Your task to perform on an android device: choose inbox layout in the gmail app Image 0: 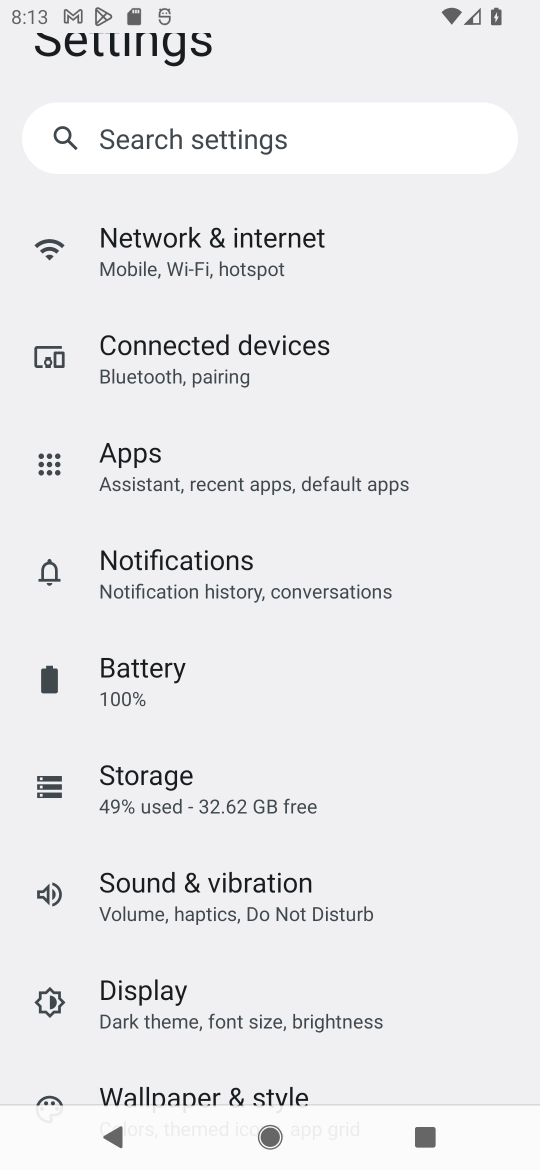
Step 0: press home button
Your task to perform on an android device: choose inbox layout in the gmail app Image 1: 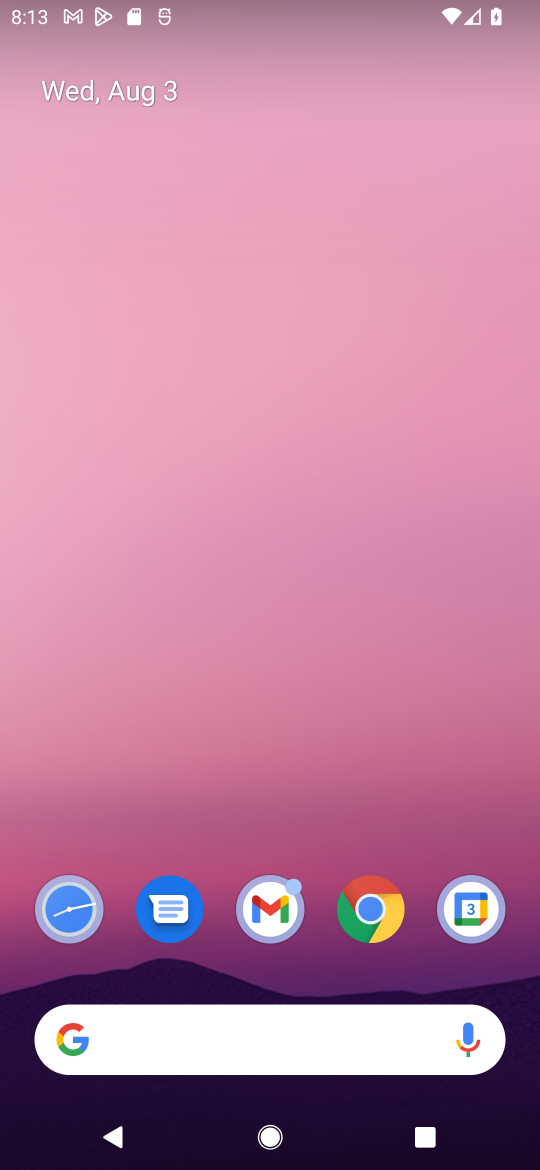
Step 1: drag from (416, 818) to (447, 139)
Your task to perform on an android device: choose inbox layout in the gmail app Image 2: 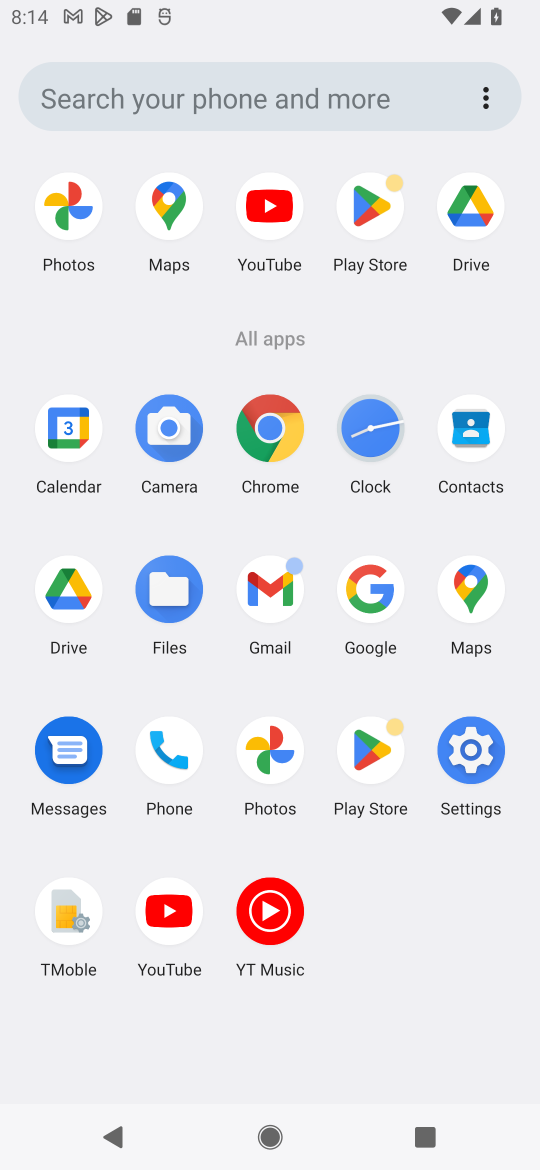
Step 2: click (268, 603)
Your task to perform on an android device: choose inbox layout in the gmail app Image 3: 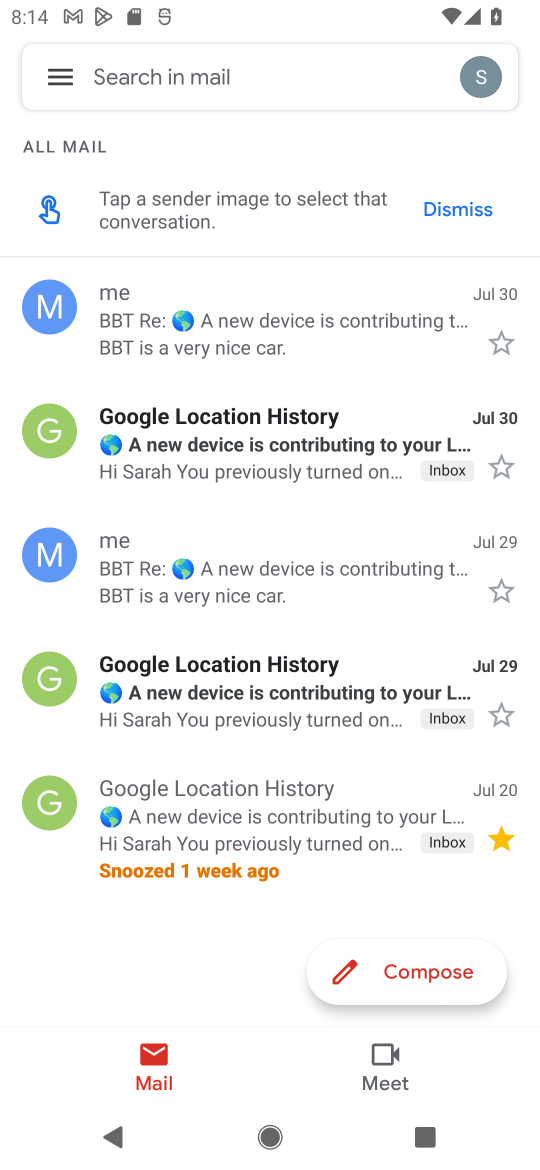
Step 3: click (61, 74)
Your task to perform on an android device: choose inbox layout in the gmail app Image 4: 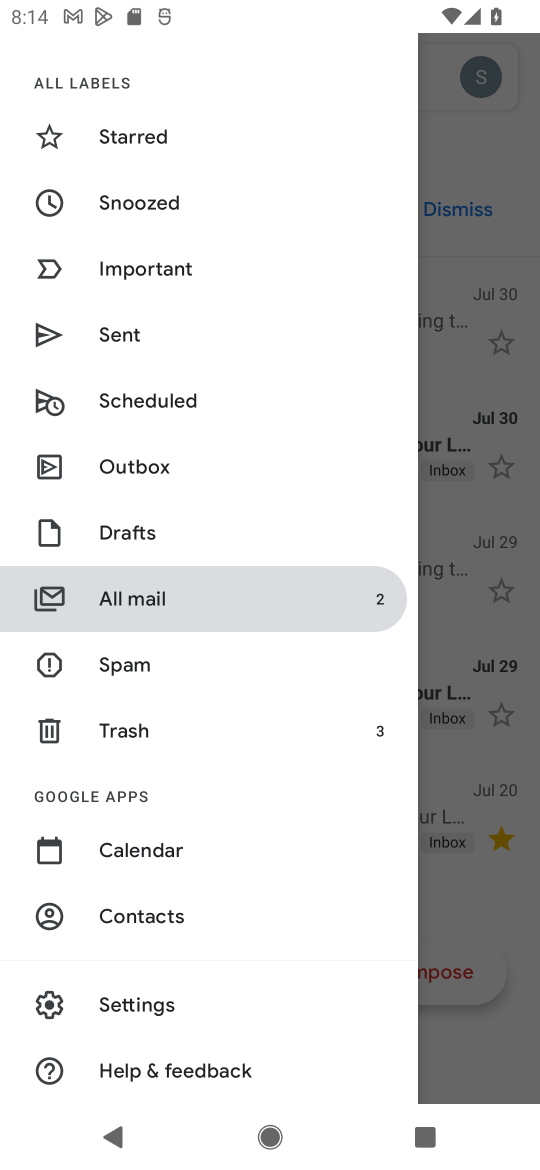
Step 4: drag from (201, 726) to (230, 533)
Your task to perform on an android device: choose inbox layout in the gmail app Image 5: 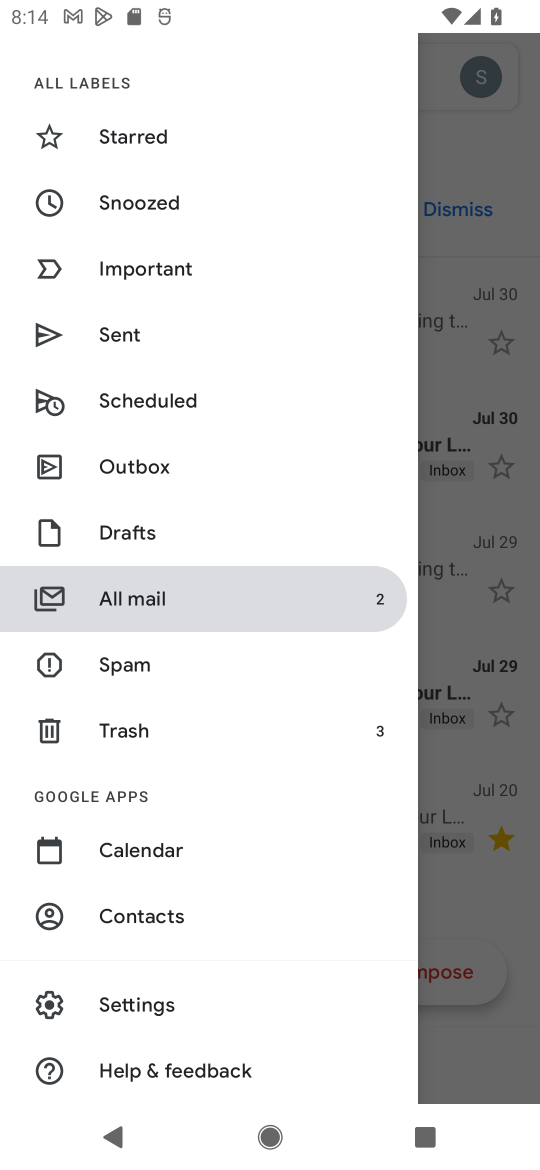
Step 5: click (171, 1007)
Your task to perform on an android device: choose inbox layout in the gmail app Image 6: 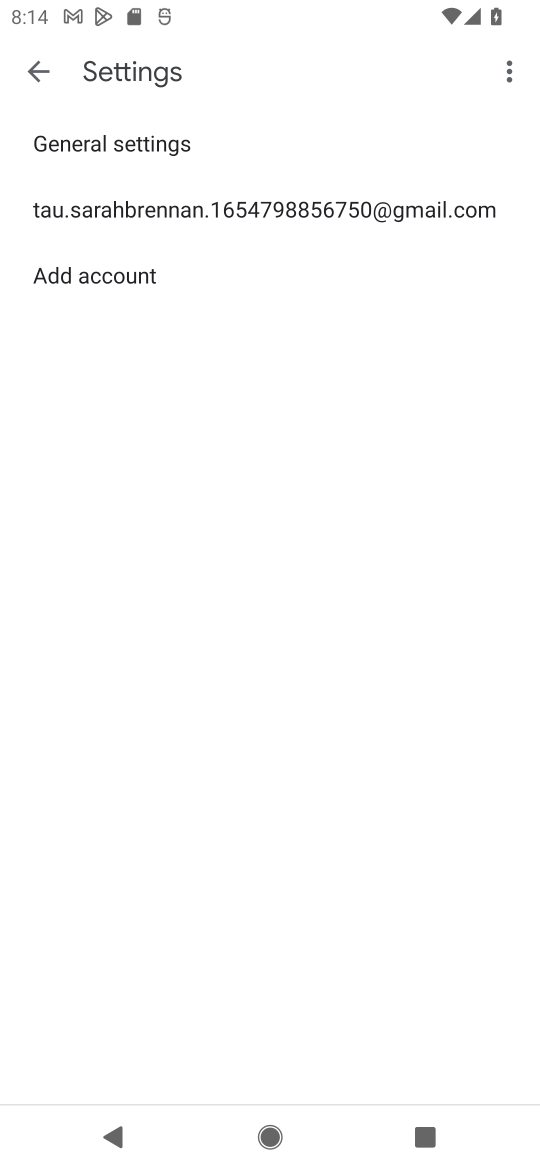
Step 6: click (204, 209)
Your task to perform on an android device: choose inbox layout in the gmail app Image 7: 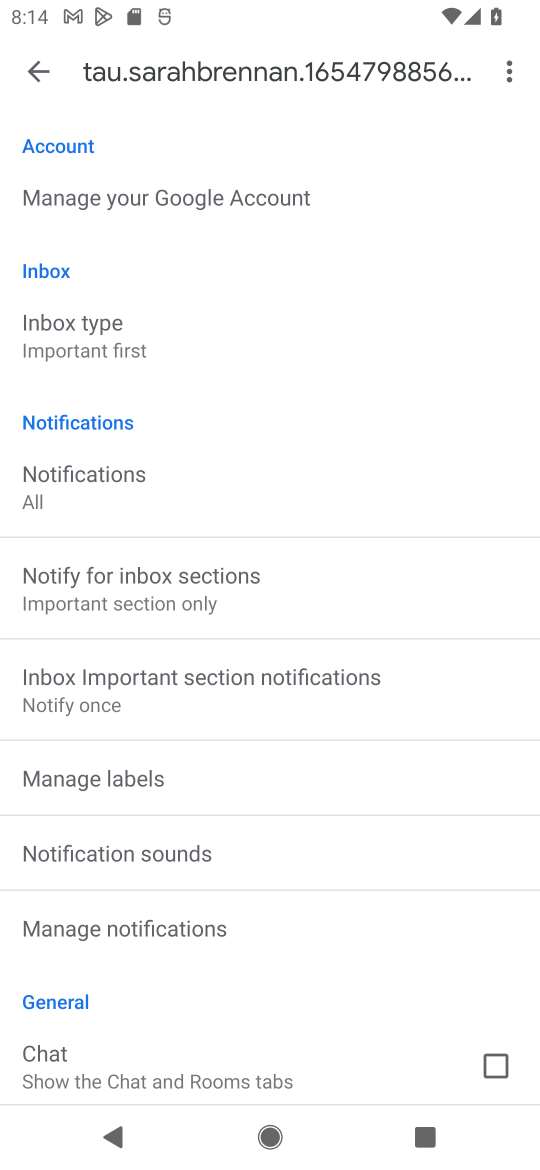
Step 7: drag from (424, 777) to (462, 598)
Your task to perform on an android device: choose inbox layout in the gmail app Image 8: 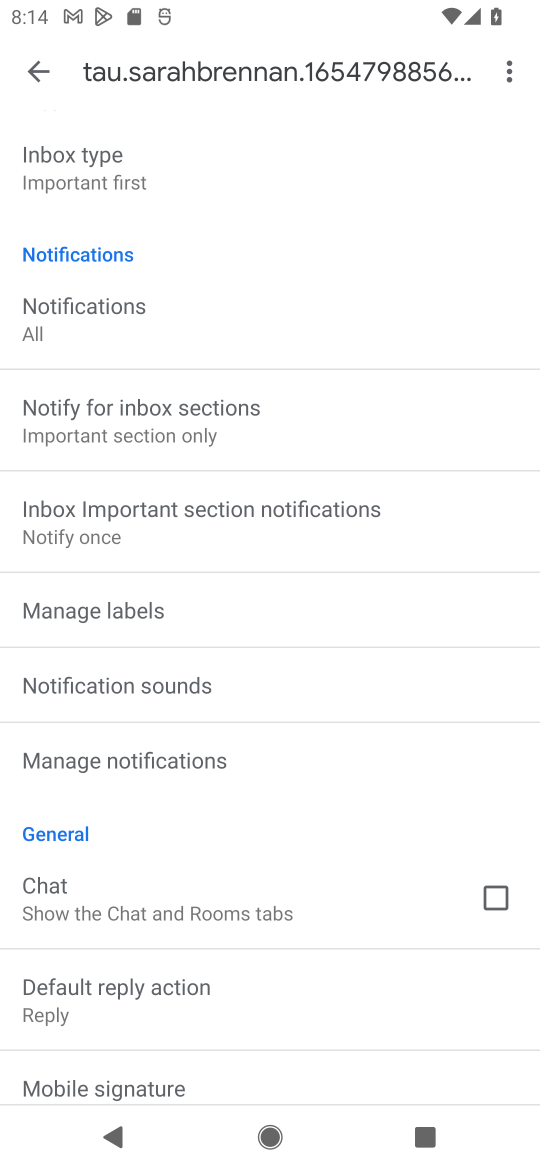
Step 8: drag from (387, 786) to (428, 612)
Your task to perform on an android device: choose inbox layout in the gmail app Image 9: 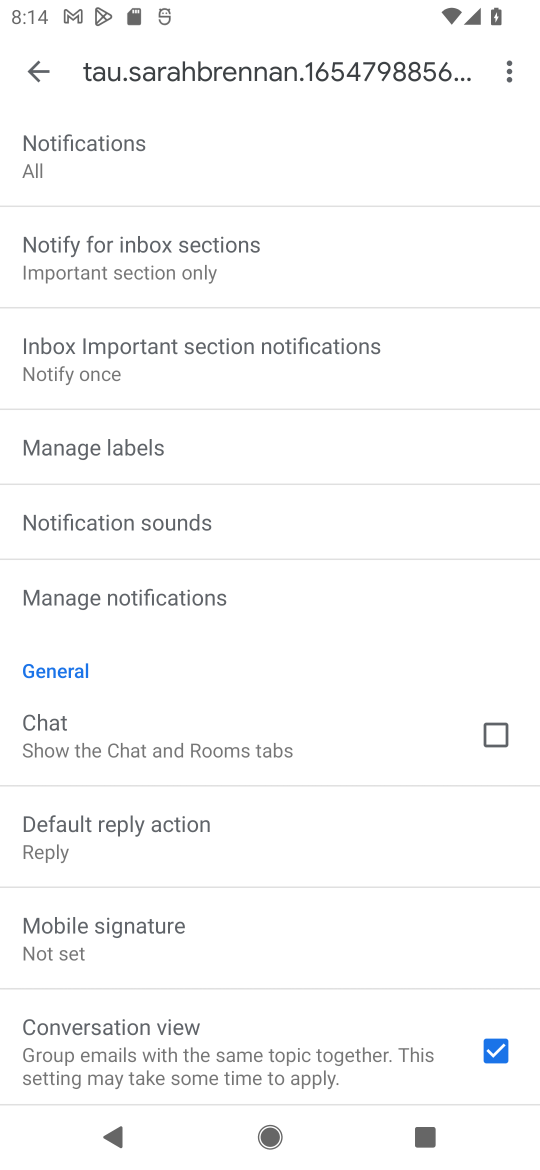
Step 9: drag from (416, 797) to (436, 601)
Your task to perform on an android device: choose inbox layout in the gmail app Image 10: 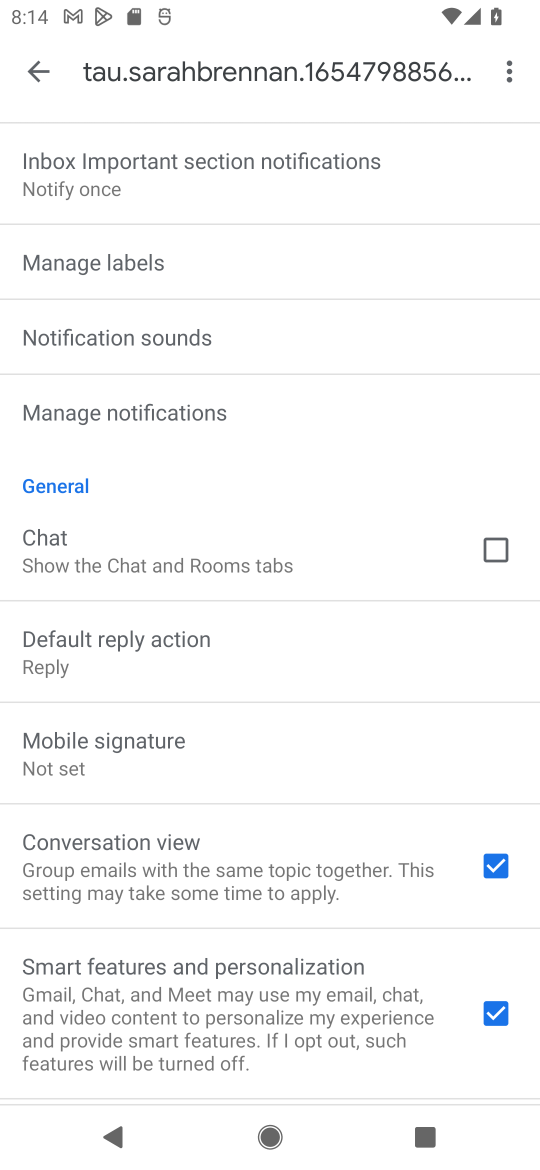
Step 10: drag from (304, 793) to (344, 551)
Your task to perform on an android device: choose inbox layout in the gmail app Image 11: 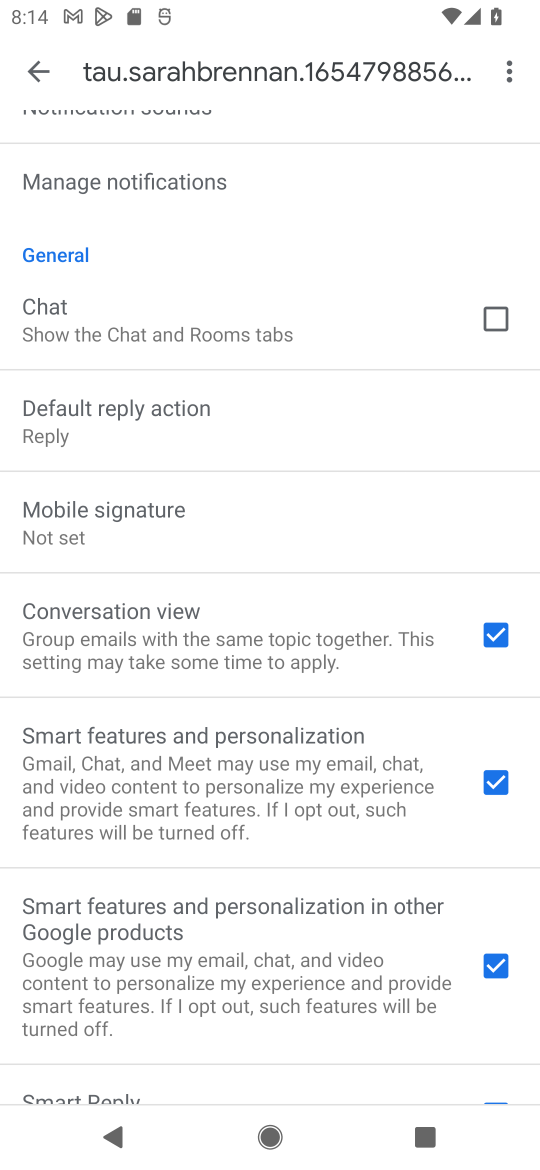
Step 11: drag from (356, 343) to (361, 563)
Your task to perform on an android device: choose inbox layout in the gmail app Image 12: 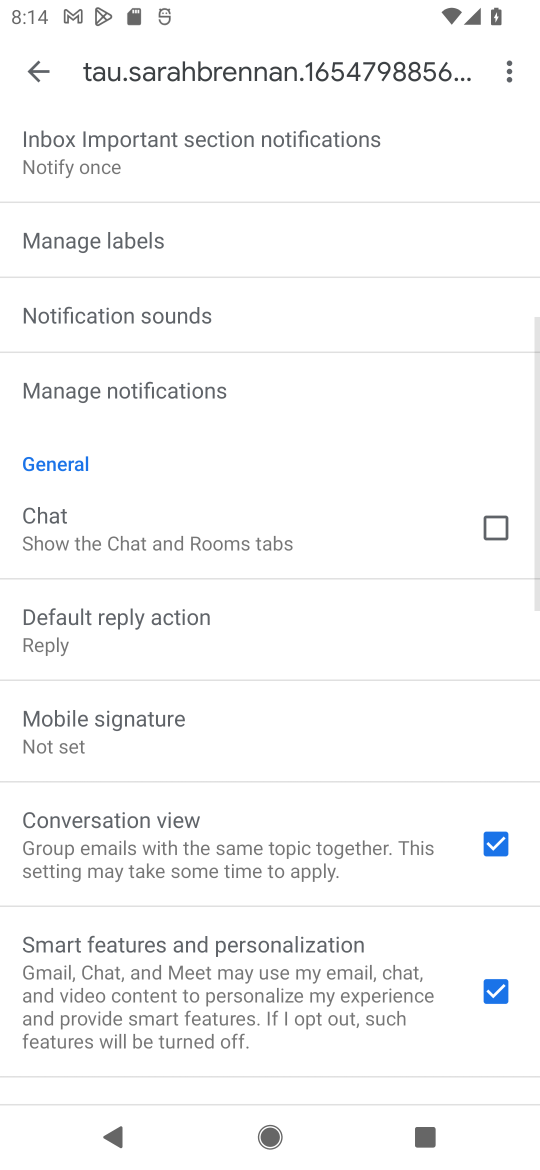
Step 12: drag from (380, 316) to (380, 718)
Your task to perform on an android device: choose inbox layout in the gmail app Image 13: 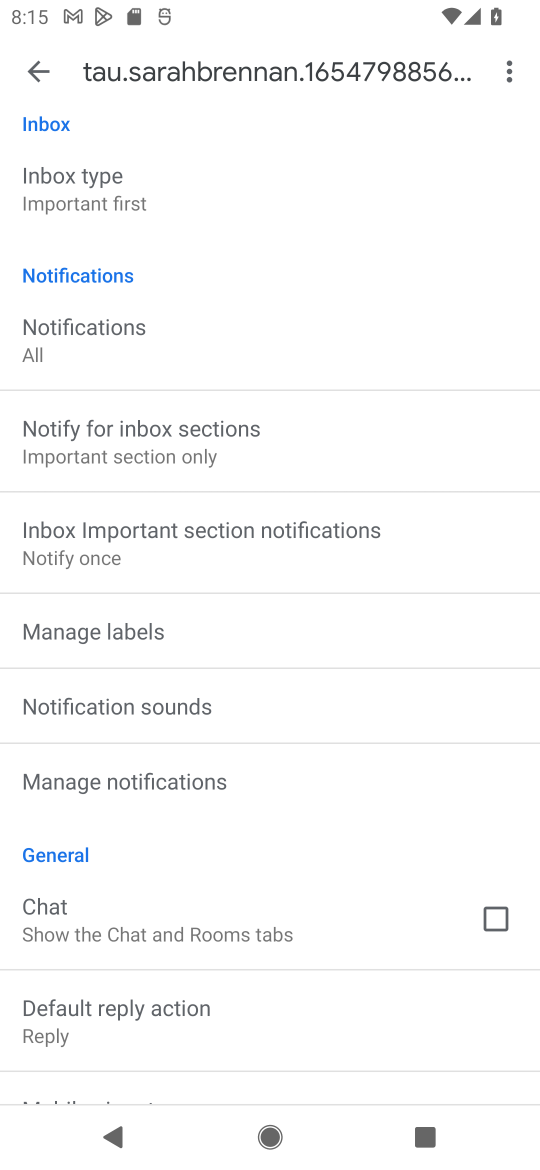
Step 13: drag from (360, 351) to (358, 636)
Your task to perform on an android device: choose inbox layout in the gmail app Image 14: 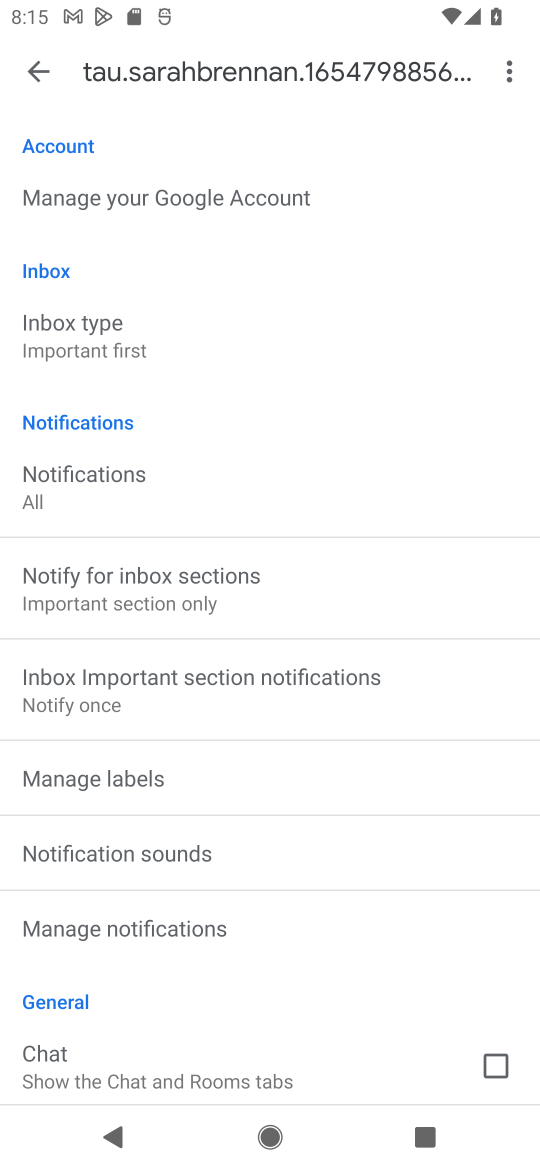
Step 14: click (129, 343)
Your task to perform on an android device: choose inbox layout in the gmail app Image 15: 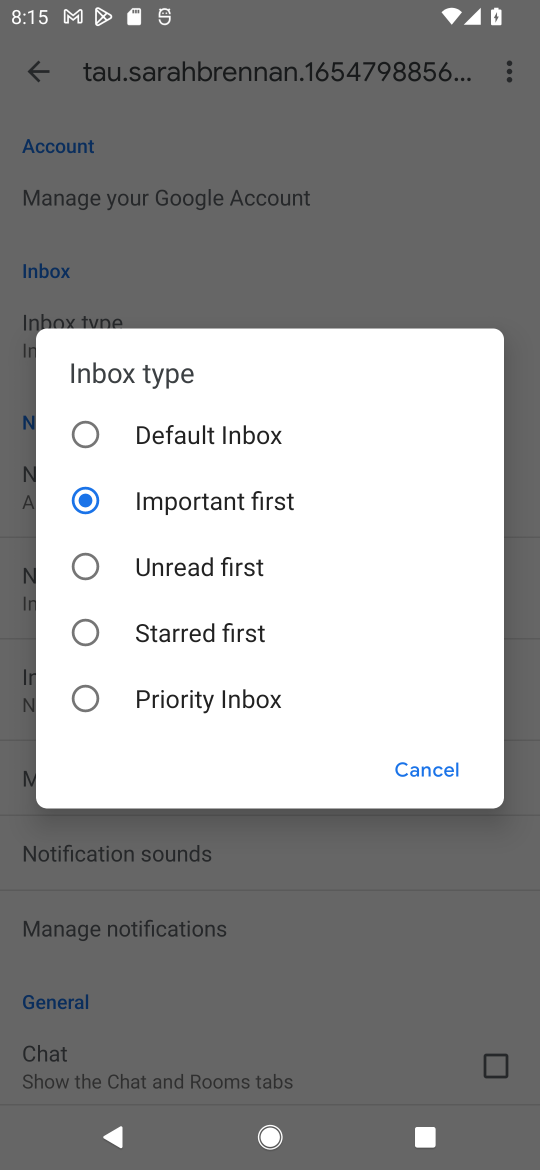
Step 15: click (191, 561)
Your task to perform on an android device: choose inbox layout in the gmail app Image 16: 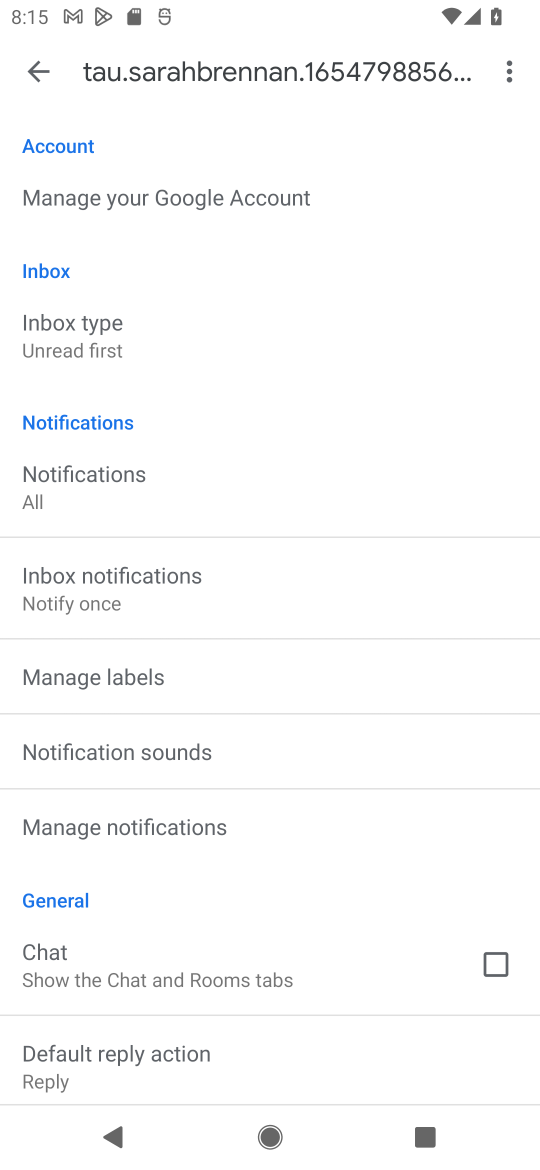
Step 16: task complete